Your task to perform on an android device: turn on priority inbox in the gmail app Image 0: 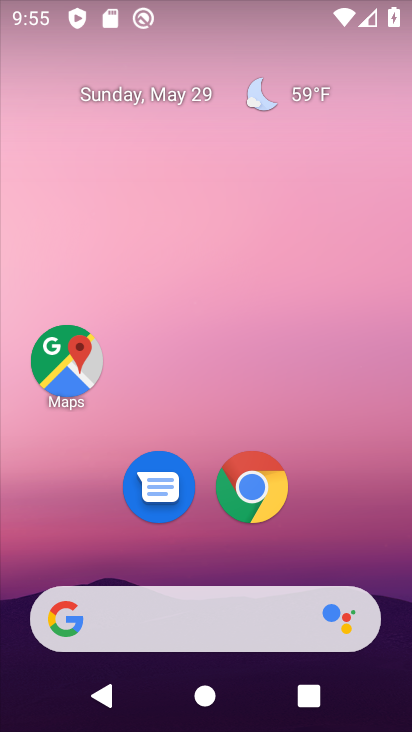
Step 0: drag from (385, 675) to (332, 200)
Your task to perform on an android device: turn on priority inbox in the gmail app Image 1: 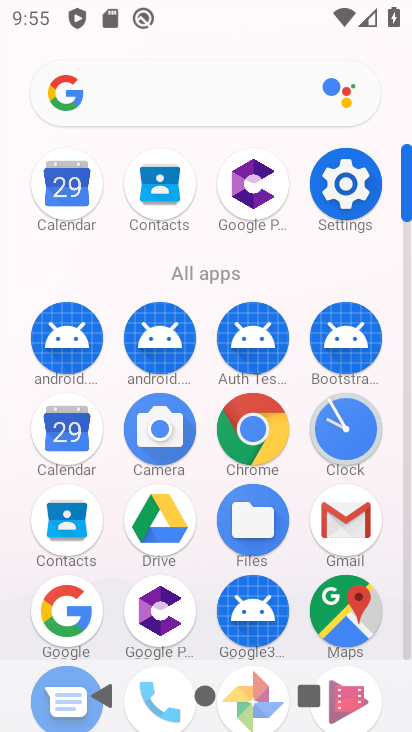
Step 1: click (363, 513)
Your task to perform on an android device: turn on priority inbox in the gmail app Image 2: 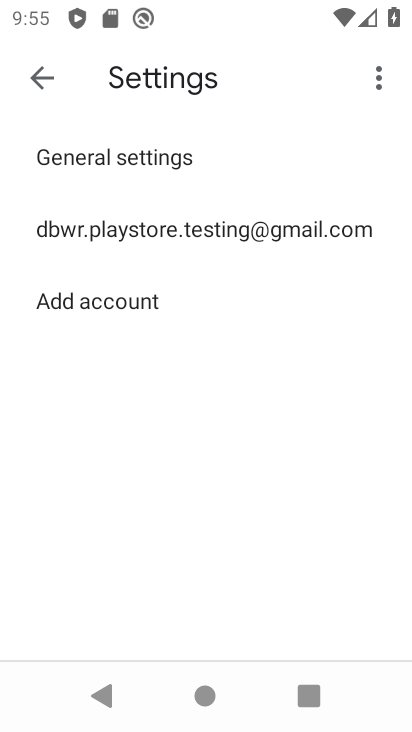
Step 2: click (377, 76)
Your task to perform on an android device: turn on priority inbox in the gmail app Image 3: 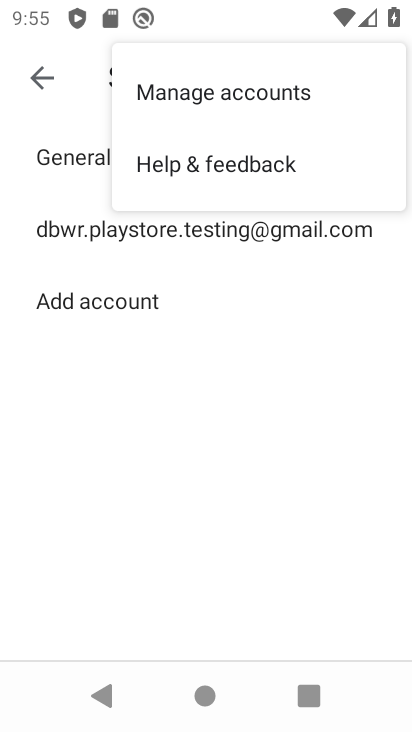
Step 3: click (66, 103)
Your task to perform on an android device: turn on priority inbox in the gmail app Image 4: 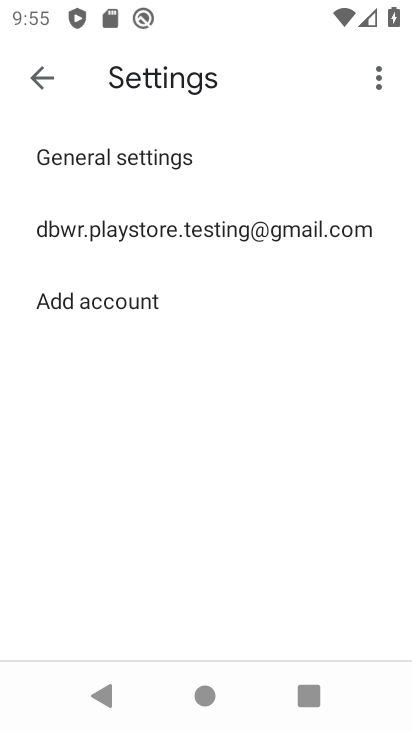
Step 4: click (93, 235)
Your task to perform on an android device: turn on priority inbox in the gmail app Image 5: 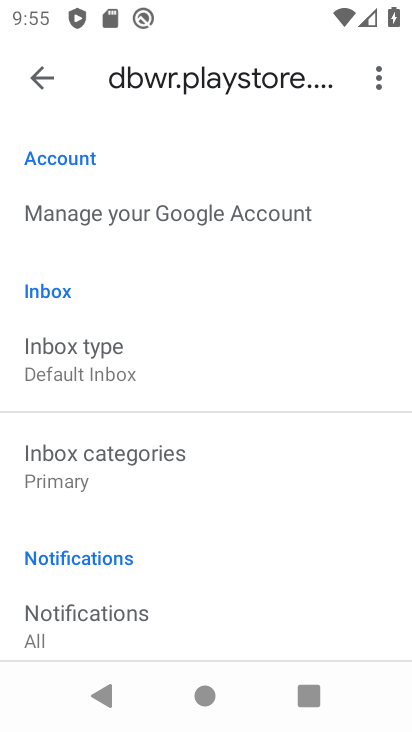
Step 5: click (55, 359)
Your task to perform on an android device: turn on priority inbox in the gmail app Image 6: 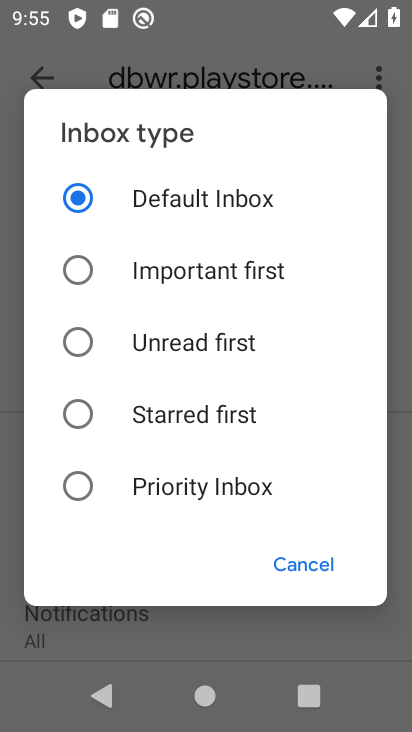
Step 6: click (72, 488)
Your task to perform on an android device: turn on priority inbox in the gmail app Image 7: 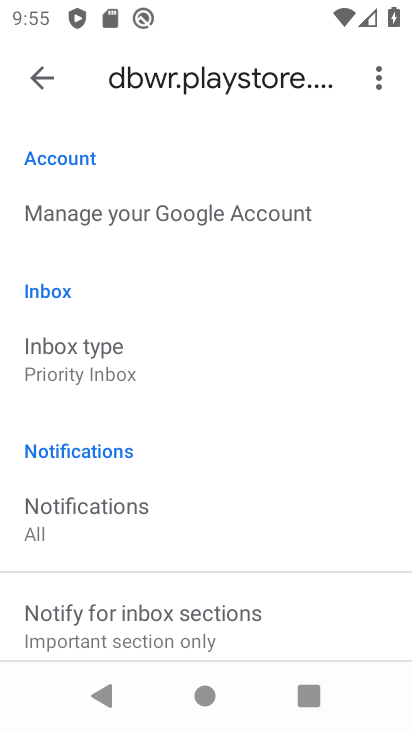
Step 7: task complete